Your task to perform on an android device: Go to Maps Image 0: 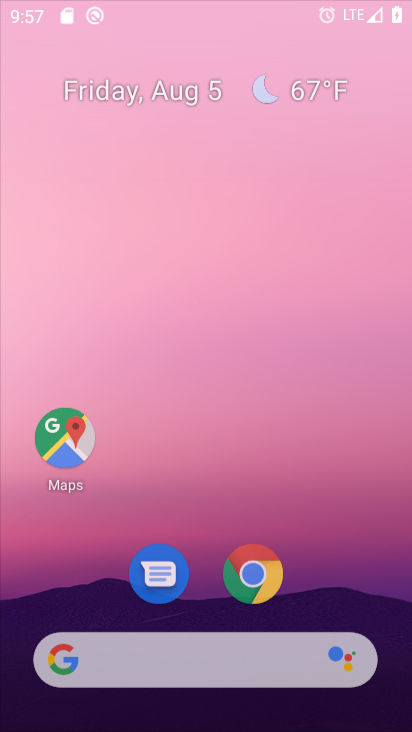
Step 0: click (209, 24)
Your task to perform on an android device: Go to Maps Image 1: 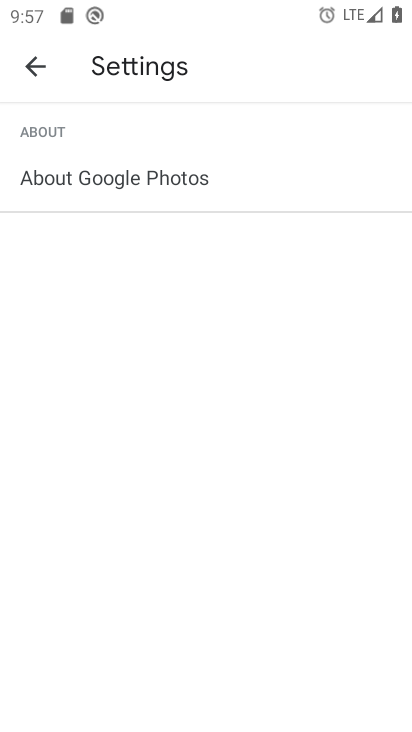
Step 1: press home button
Your task to perform on an android device: Go to Maps Image 2: 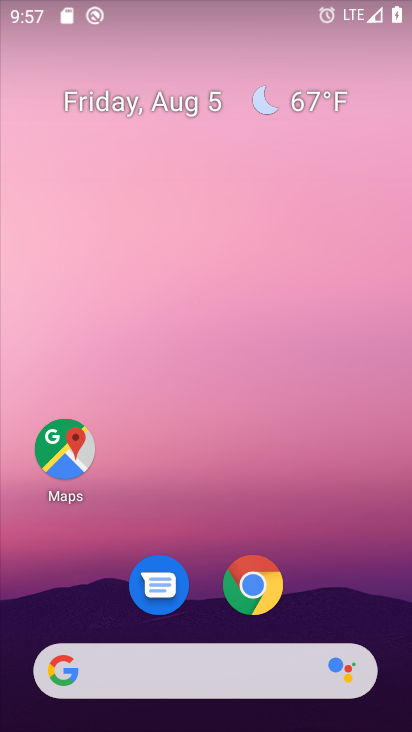
Step 2: click (50, 457)
Your task to perform on an android device: Go to Maps Image 3: 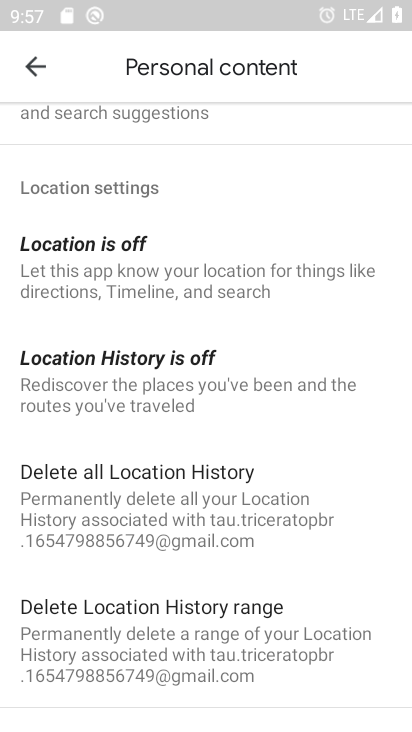
Step 3: click (32, 63)
Your task to perform on an android device: Go to Maps Image 4: 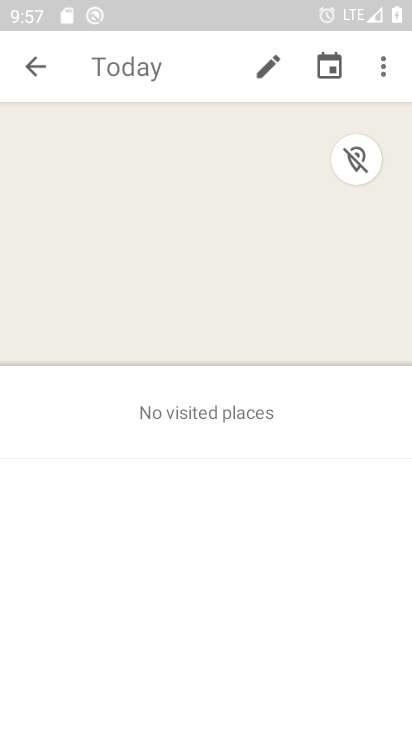
Step 4: click (32, 63)
Your task to perform on an android device: Go to Maps Image 5: 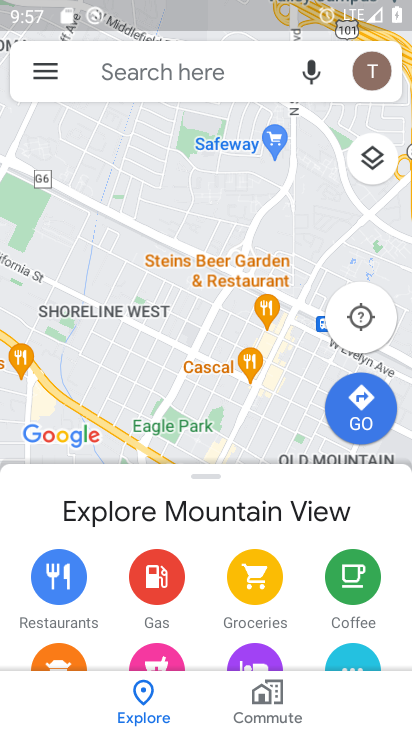
Step 5: task complete